Your task to perform on an android device: allow cookies in the chrome app Image 0: 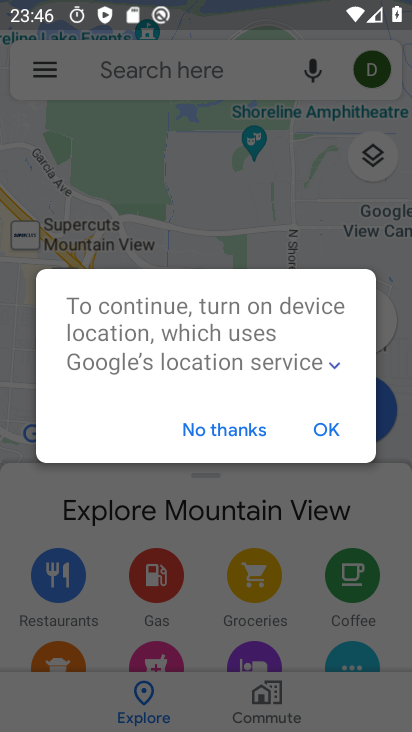
Step 0: press home button
Your task to perform on an android device: allow cookies in the chrome app Image 1: 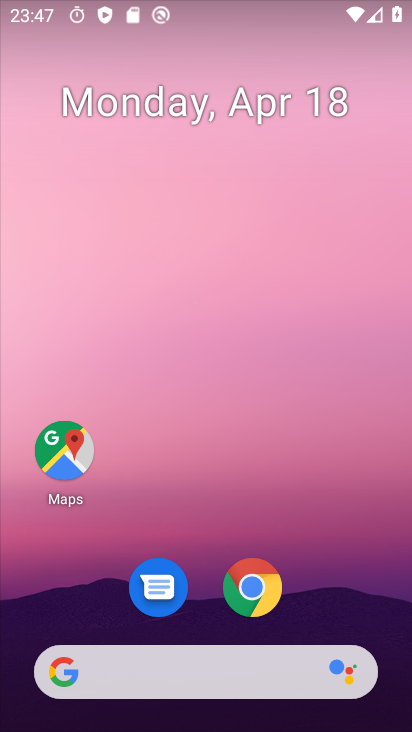
Step 1: click (260, 602)
Your task to perform on an android device: allow cookies in the chrome app Image 2: 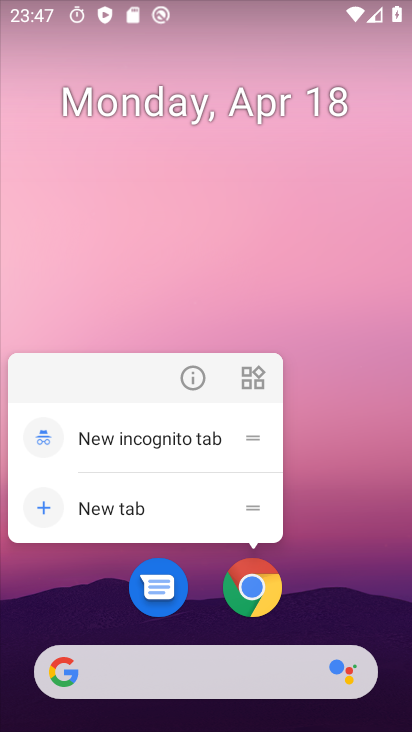
Step 2: click (250, 596)
Your task to perform on an android device: allow cookies in the chrome app Image 3: 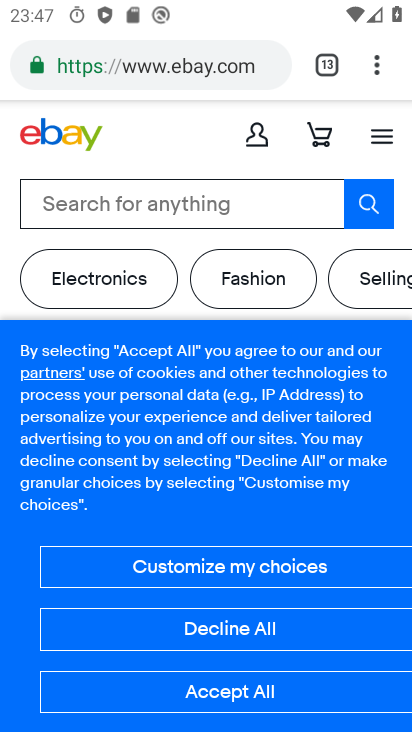
Step 3: click (381, 63)
Your task to perform on an android device: allow cookies in the chrome app Image 4: 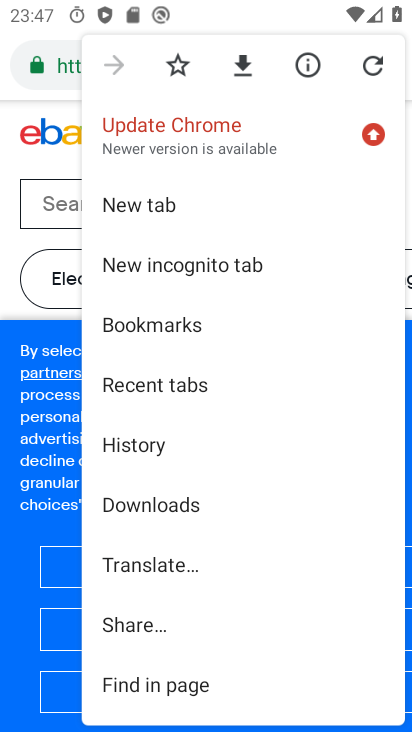
Step 4: drag from (206, 618) to (277, 287)
Your task to perform on an android device: allow cookies in the chrome app Image 5: 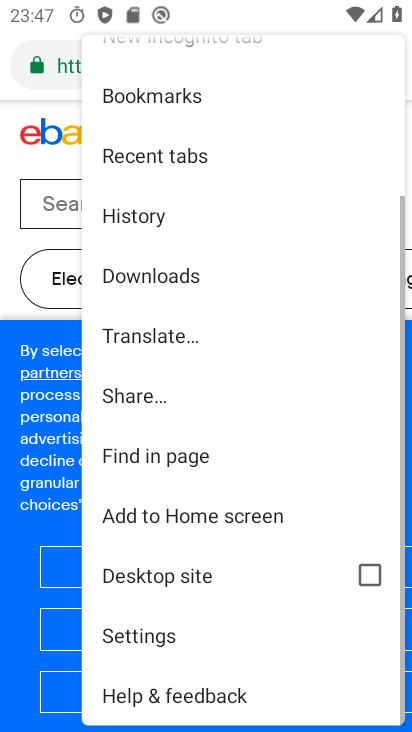
Step 5: click (160, 644)
Your task to perform on an android device: allow cookies in the chrome app Image 6: 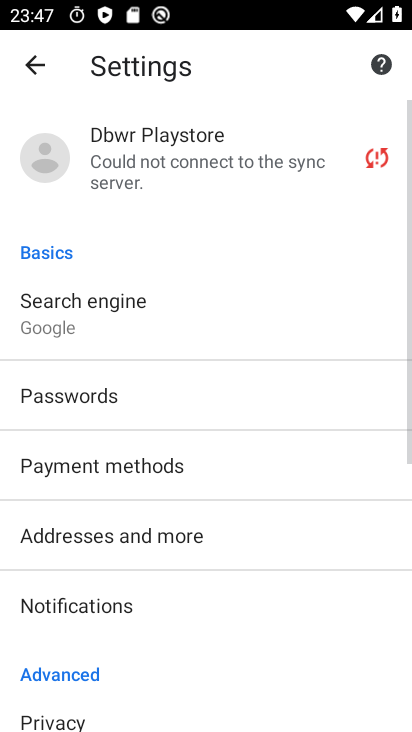
Step 6: drag from (279, 660) to (289, 326)
Your task to perform on an android device: allow cookies in the chrome app Image 7: 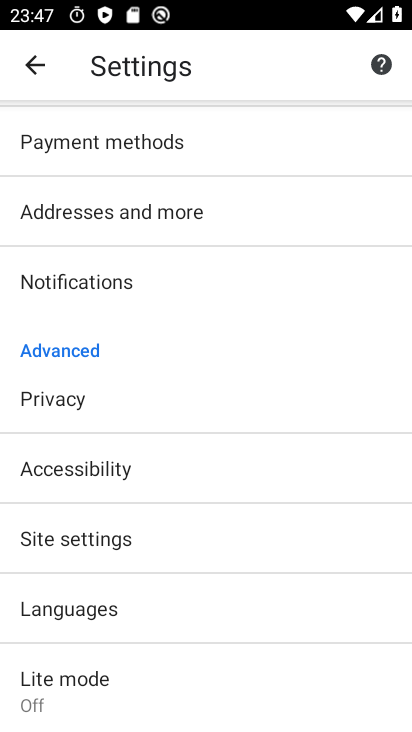
Step 7: click (103, 529)
Your task to perform on an android device: allow cookies in the chrome app Image 8: 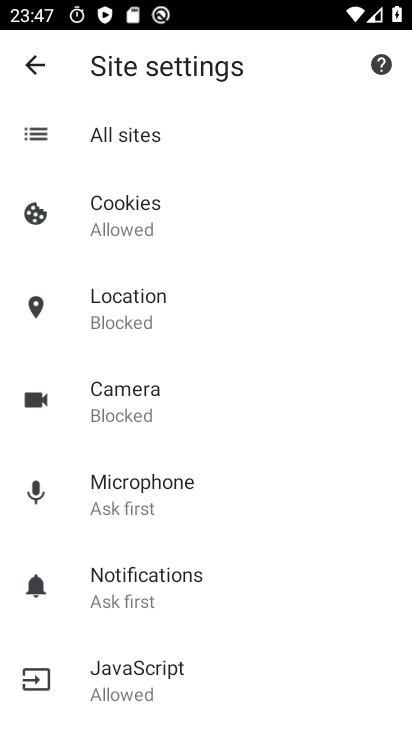
Step 8: click (147, 219)
Your task to perform on an android device: allow cookies in the chrome app Image 9: 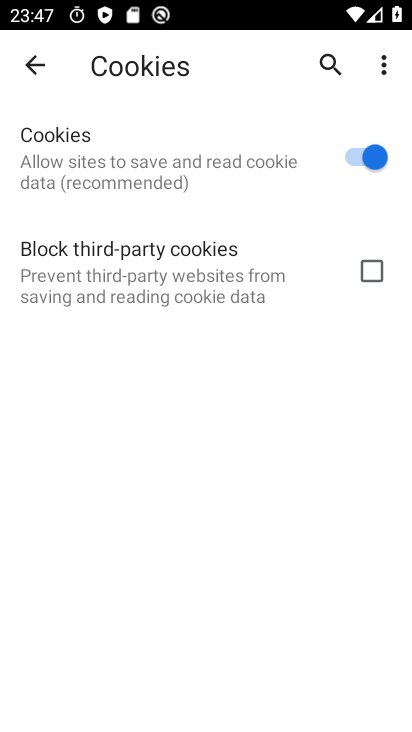
Step 9: task complete